Your task to perform on an android device: Open calendar and show me the second week of next month Image 0: 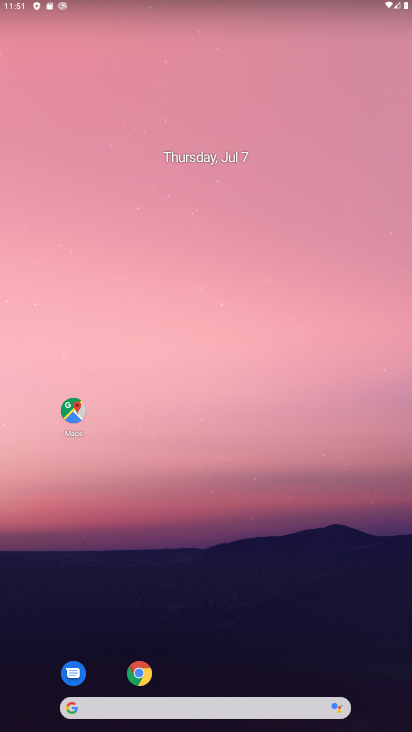
Step 0: drag from (257, 659) to (295, 48)
Your task to perform on an android device: Open calendar and show me the second week of next month Image 1: 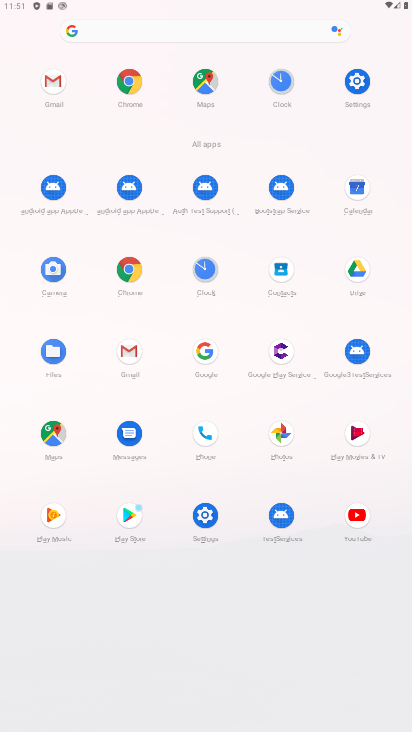
Step 1: click (358, 190)
Your task to perform on an android device: Open calendar and show me the second week of next month Image 2: 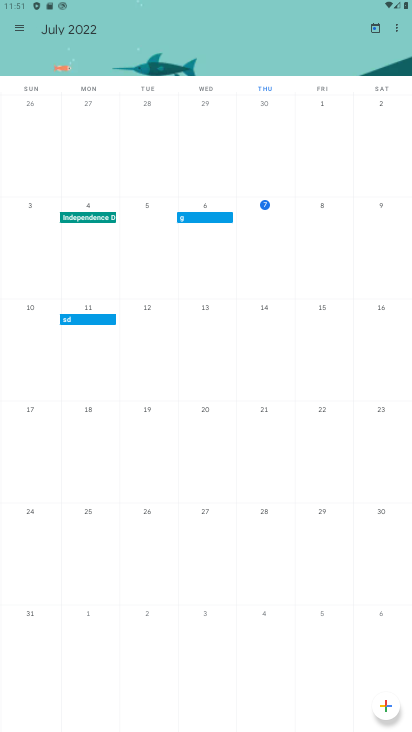
Step 2: click (379, 31)
Your task to perform on an android device: Open calendar and show me the second week of next month Image 3: 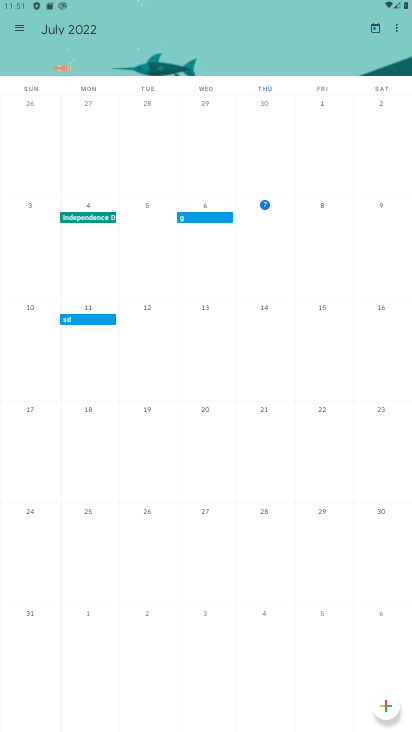
Step 3: drag from (377, 372) to (1, 454)
Your task to perform on an android device: Open calendar and show me the second week of next month Image 4: 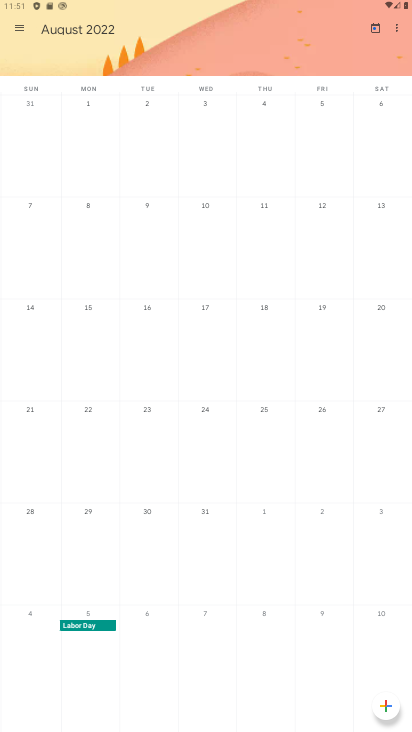
Step 4: click (91, 232)
Your task to perform on an android device: Open calendar and show me the second week of next month Image 5: 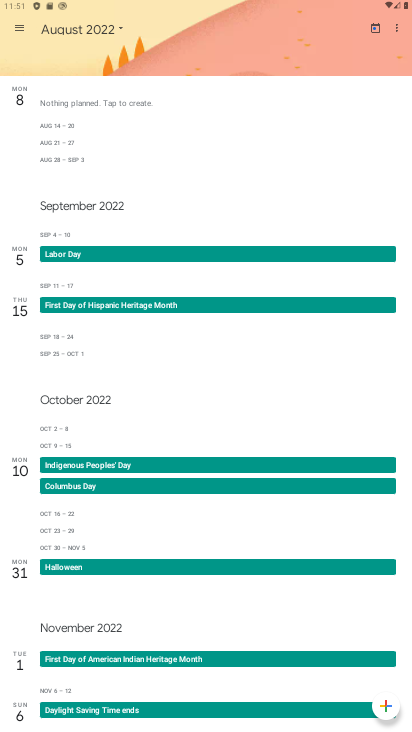
Step 5: click (14, 22)
Your task to perform on an android device: Open calendar and show me the second week of next month Image 6: 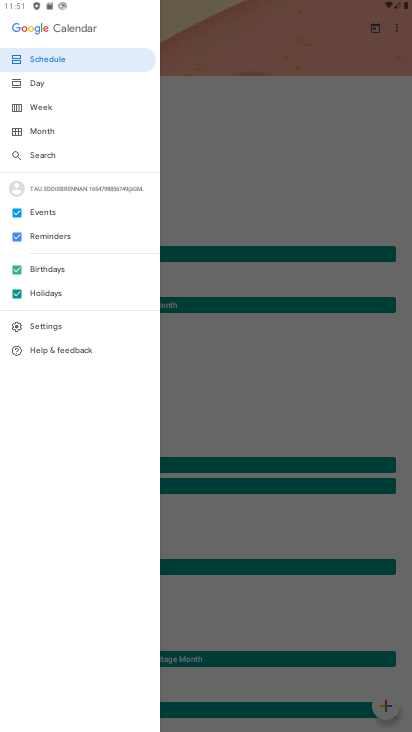
Step 6: click (50, 99)
Your task to perform on an android device: Open calendar and show me the second week of next month Image 7: 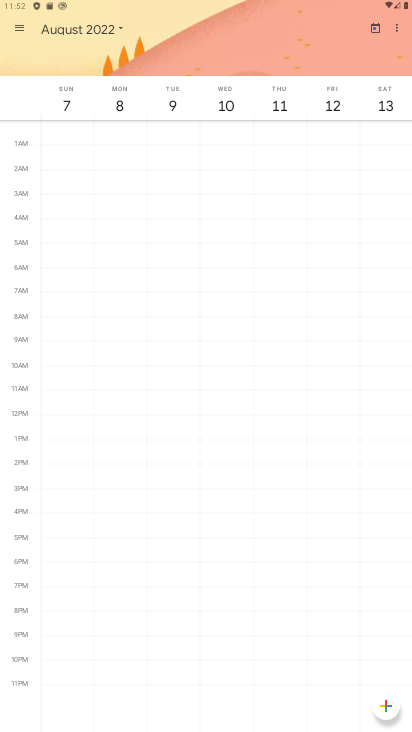
Step 7: task complete